Your task to perform on an android device: Open accessibility settings Image 0: 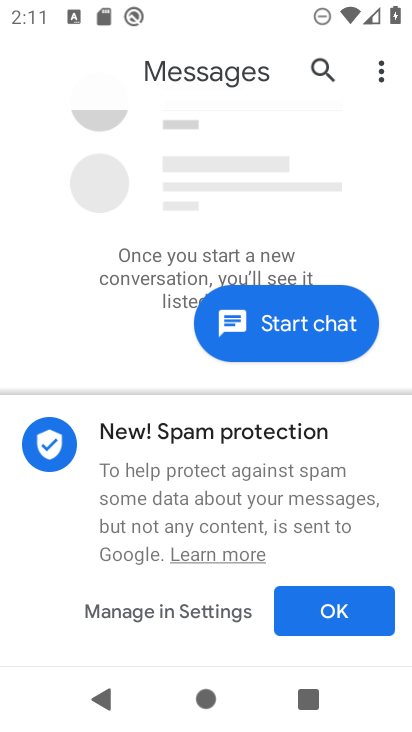
Step 0: press home button
Your task to perform on an android device: Open accessibility settings Image 1: 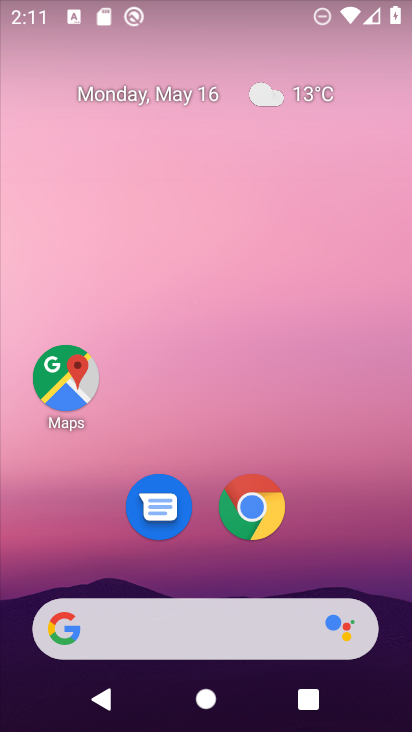
Step 1: drag from (199, 563) to (227, 152)
Your task to perform on an android device: Open accessibility settings Image 2: 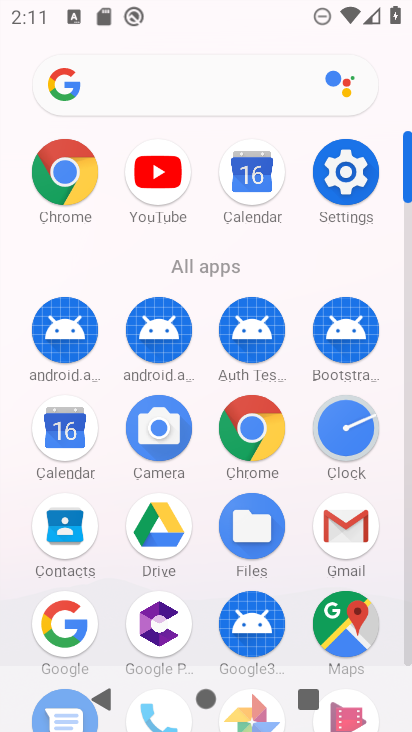
Step 2: click (341, 200)
Your task to perform on an android device: Open accessibility settings Image 3: 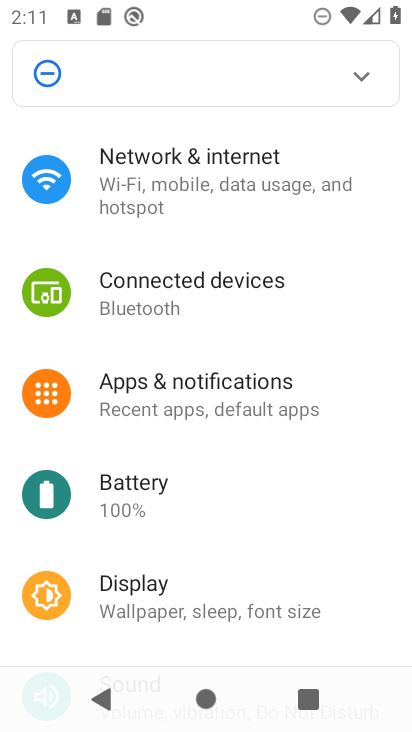
Step 3: drag from (246, 441) to (291, 47)
Your task to perform on an android device: Open accessibility settings Image 4: 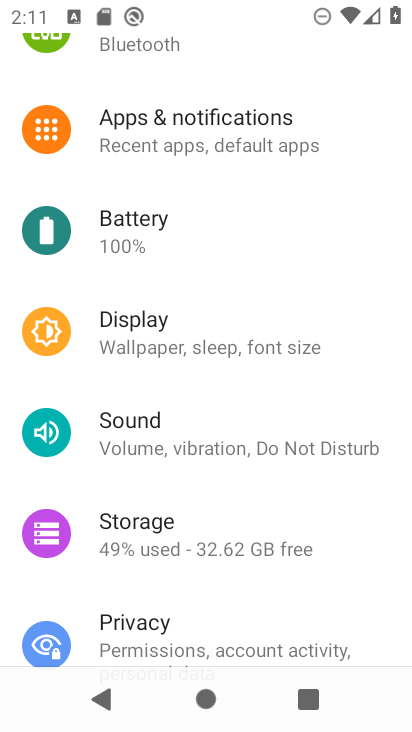
Step 4: drag from (174, 579) to (257, 148)
Your task to perform on an android device: Open accessibility settings Image 5: 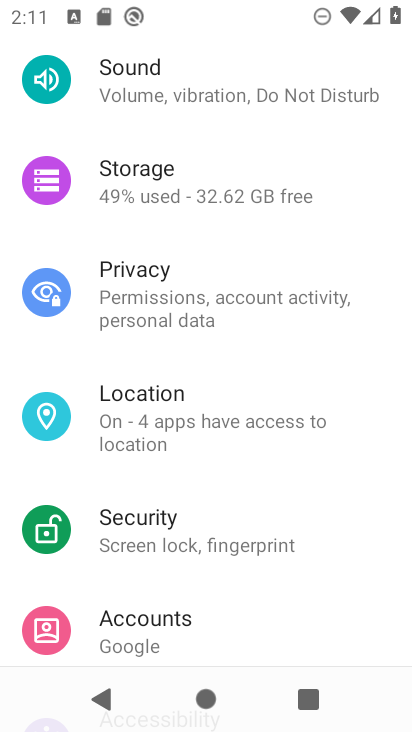
Step 5: drag from (192, 563) to (231, 155)
Your task to perform on an android device: Open accessibility settings Image 6: 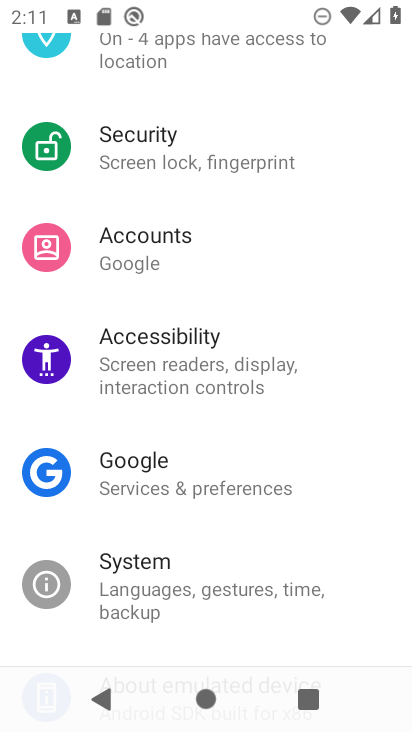
Step 6: click (180, 397)
Your task to perform on an android device: Open accessibility settings Image 7: 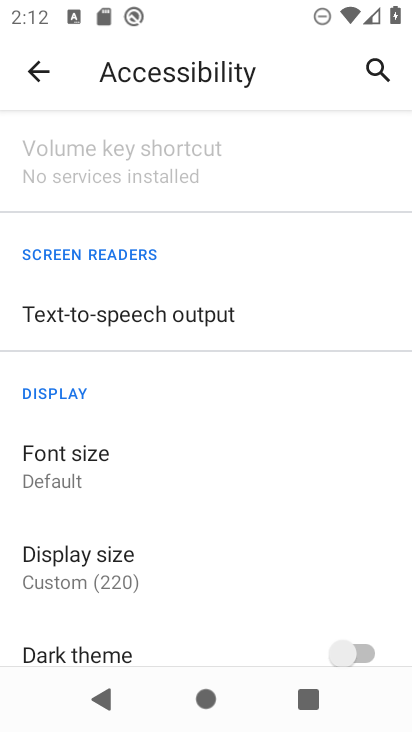
Step 7: task complete